Your task to perform on an android device: Go to Google Image 0: 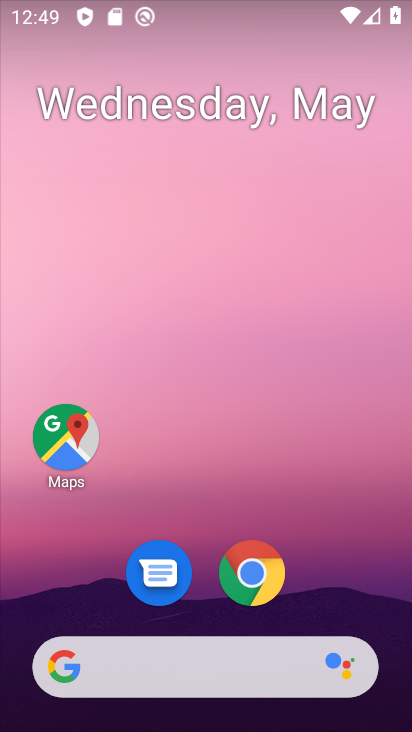
Step 0: click (259, 573)
Your task to perform on an android device: Go to Google Image 1: 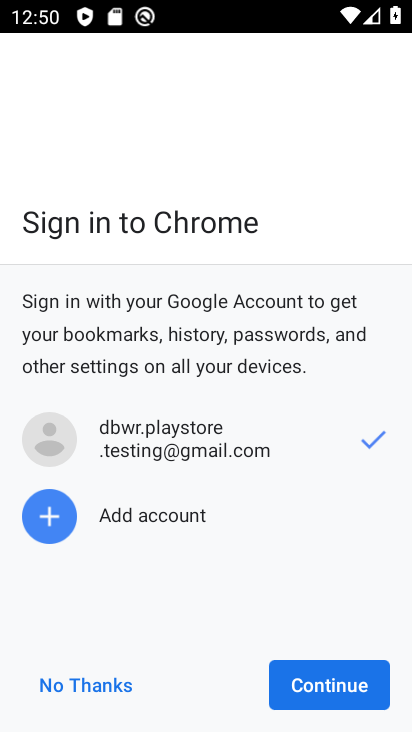
Step 1: click (339, 690)
Your task to perform on an android device: Go to Google Image 2: 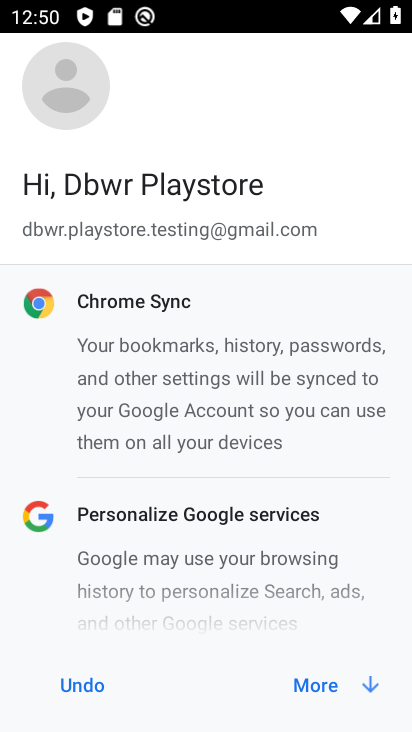
Step 2: click (323, 686)
Your task to perform on an android device: Go to Google Image 3: 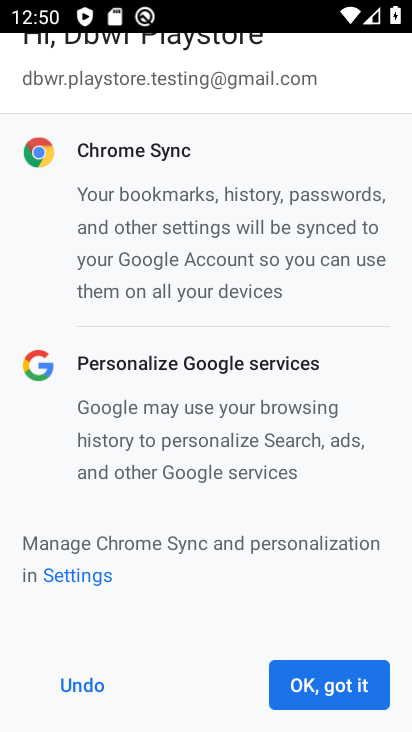
Step 3: click (323, 686)
Your task to perform on an android device: Go to Google Image 4: 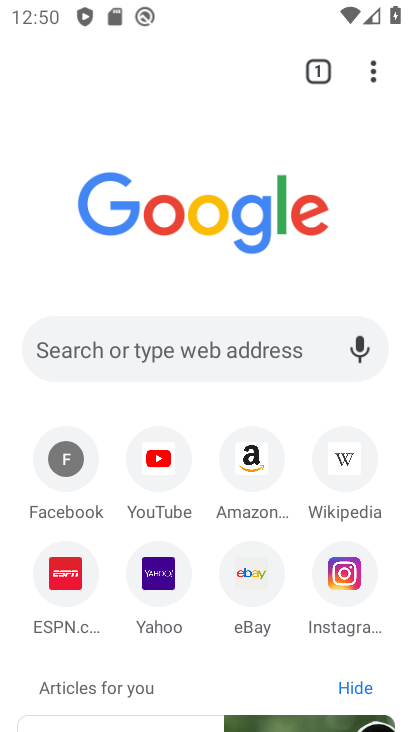
Step 4: task complete